Your task to perform on an android device: Go to battery settings Image 0: 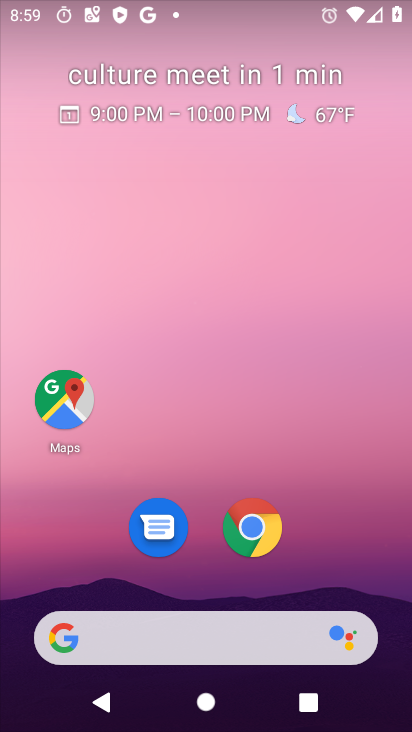
Step 0: drag from (251, 730) to (252, 273)
Your task to perform on an android device: Go to battery settings Image 1: 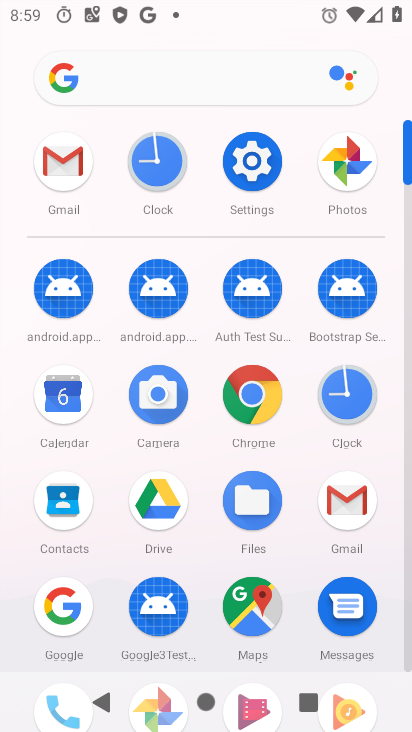
Step 1: click (249, 161)
Your task to perform on an android device: Go to battery settings Image 2: 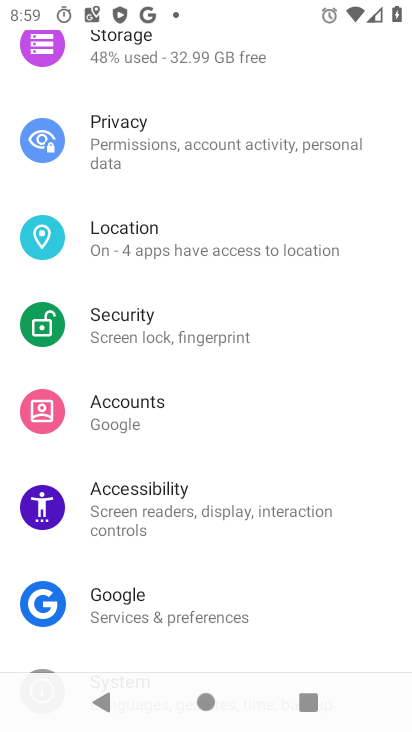
Step 2: drag from (201, 128) to (252, 532)
Your task to perform on an android device: Go to battery settings Image 3: 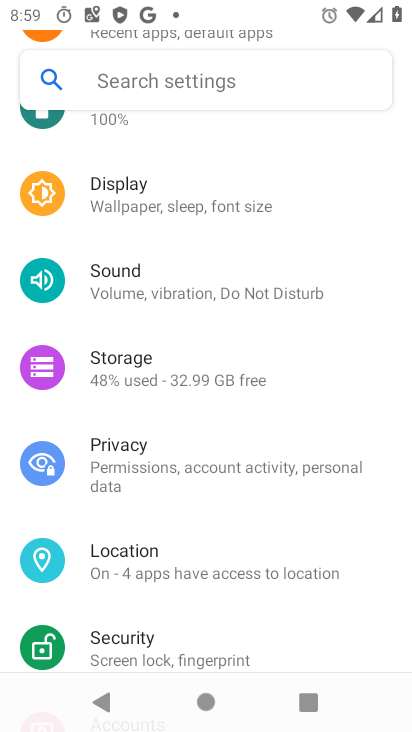
Step 3: drag from (195, 157) to (231, 481)
Your task to perform on an android device: Go to battery settings Image 4: 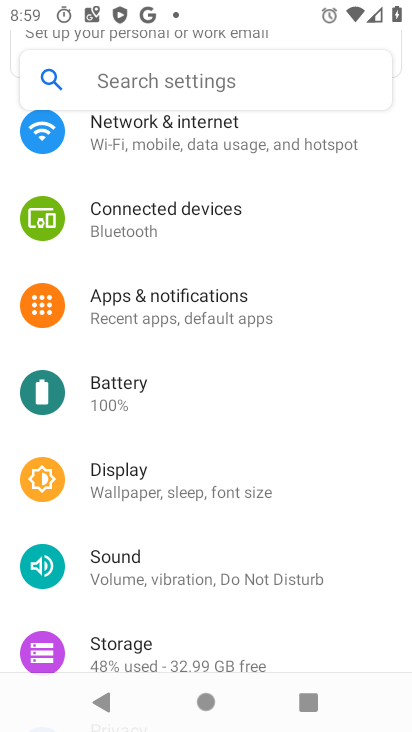
Step 4: drag from (199, 174) to (215, 537)
Your task to perform on an android device: Go to battery settings Image 5: 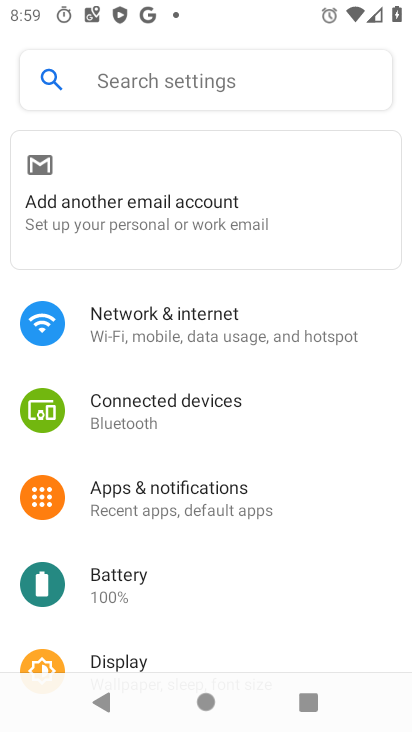
Step 5: drag from (191, 627) to (185, 237)
Your task to perform on an android device: Go to battery settings Image 6: 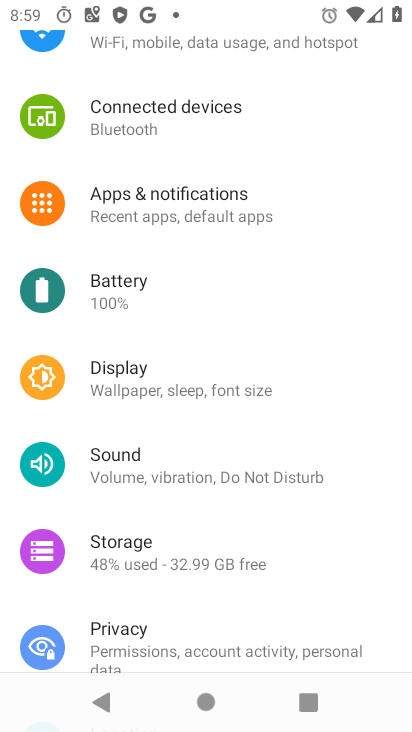
Step 6: drag from (200, 638) to (200, 251)
Your task to perform on an android device: Go to battery settings Image 7: 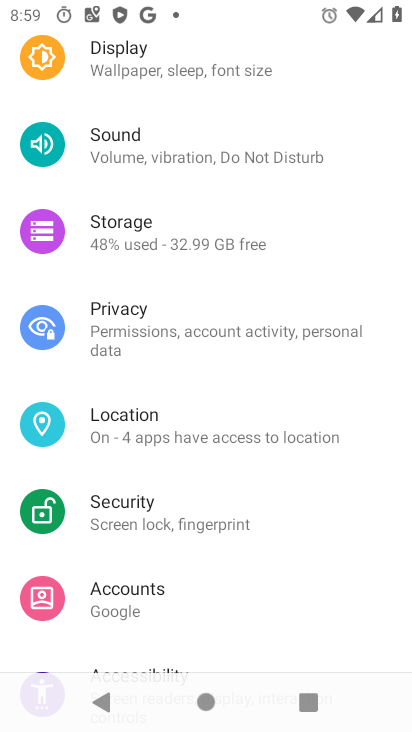
Step 7: drag from (170, 634) to (175, 282)
Your task to perform on an android device: Go to battery settings Image 8: 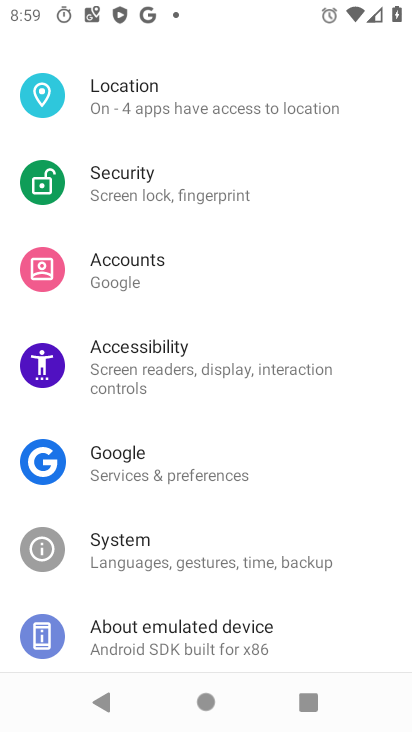
Step 8: drag from (147, 595) to (151, 212)
Your task to perform on an android device: Go to battery settings Image 9: 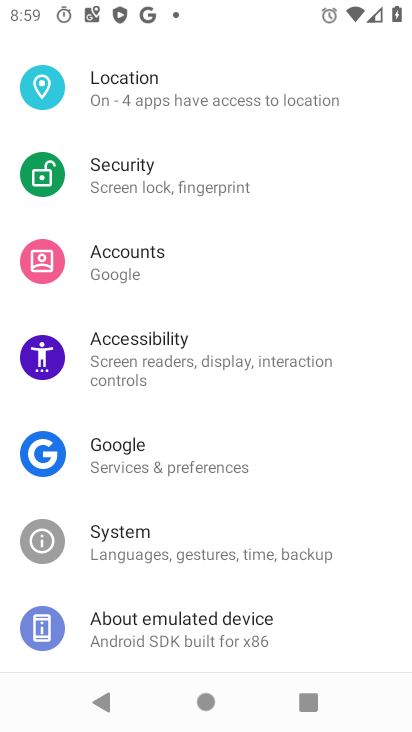
Step 9: drag from (230, 129) to (224, 484)
Your task to perform on an android device: Go to battery settings Image 10: 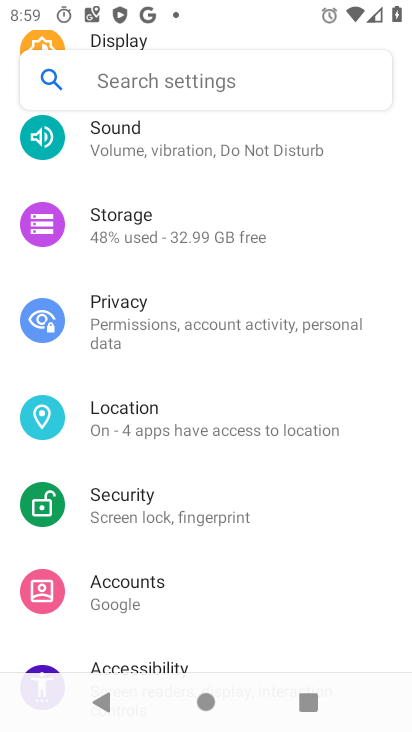
Step 10: drag from (187, 175) to (211, 470)
Your task to perform on an android device: Go to battery settings Image 11: 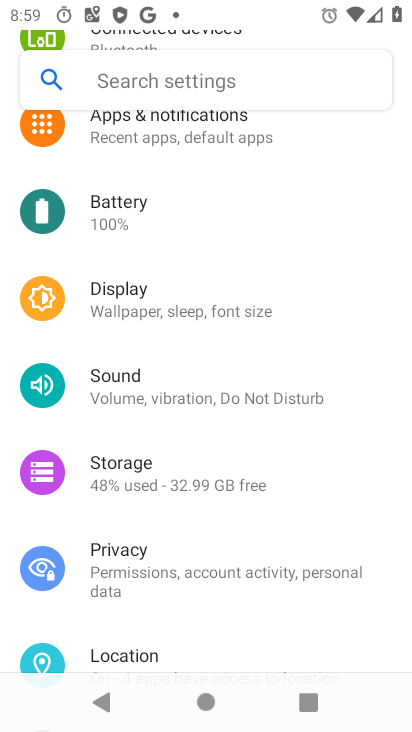
Step 11: click (100, 209)
Your task to perform on an android device: Go to battery settings Image 12: 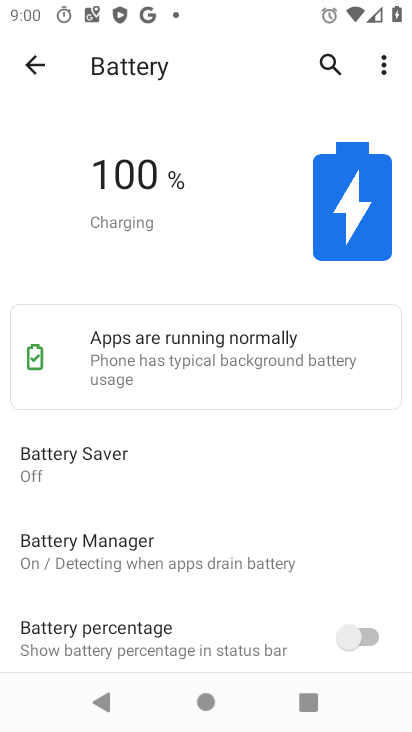
Step 12: task complete